Your task to perform on an android device: Open sound settings Image 0: 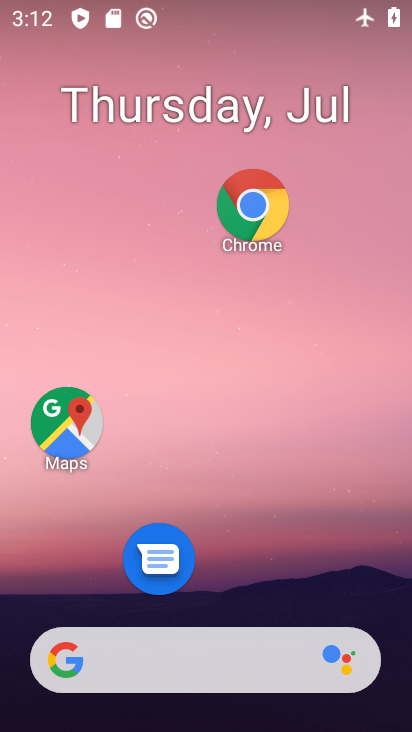
Step 0: drag from (221, 605) to (25, 285)
Your task to perform on an android device: Open sound settings Image 1: 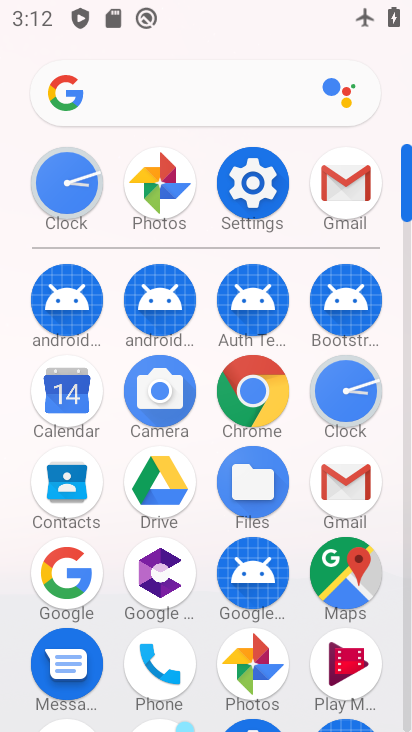
Step 1: click (265, 202)
Your task to perform on an android device: Open sound settings Image 2: 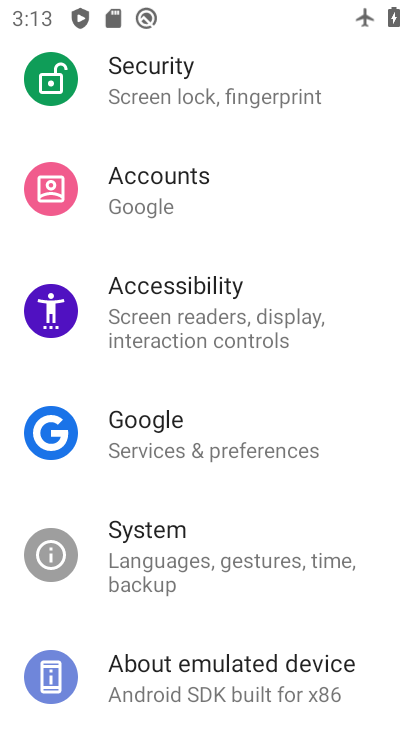
Step 2: drag from (224, 225) to (201, 599)
Your task to perform on an android device: Open sound settings Image 3: 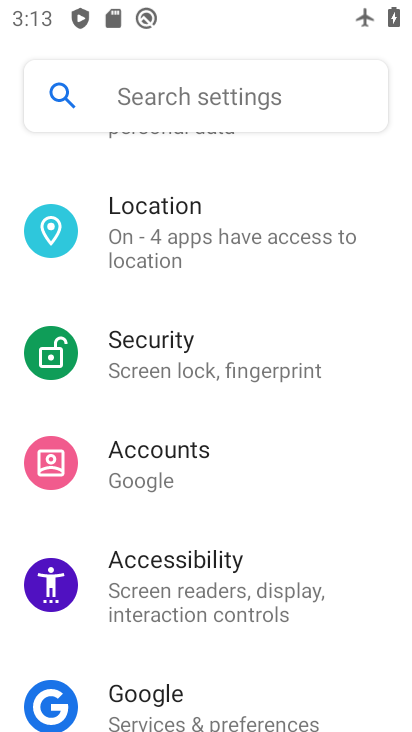
Step 3: drag from (176, 250) to (173, 561)
Your task to perform on an android device: Open sound settings Image 4: 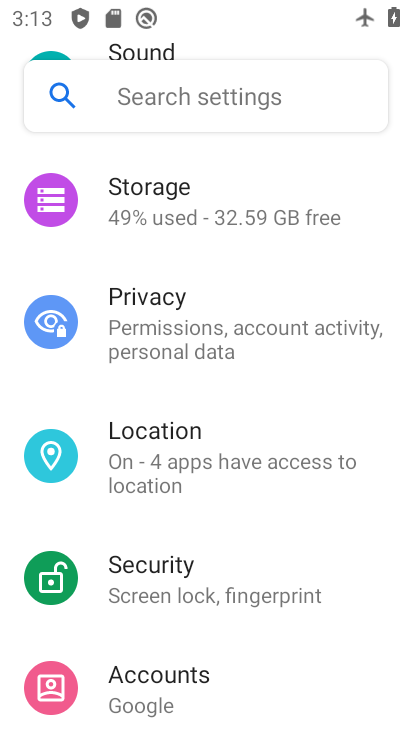
Step 4: drag from (172, 277) to (162, 729)
Your task to perform on an android device: Open sound settings Image 5: 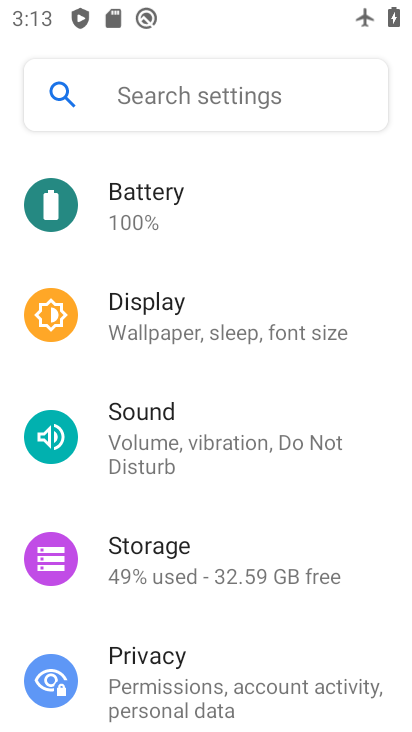
Step 5: click (163, 455)
Your task to perform on an android device: Open sound settings Image 6: 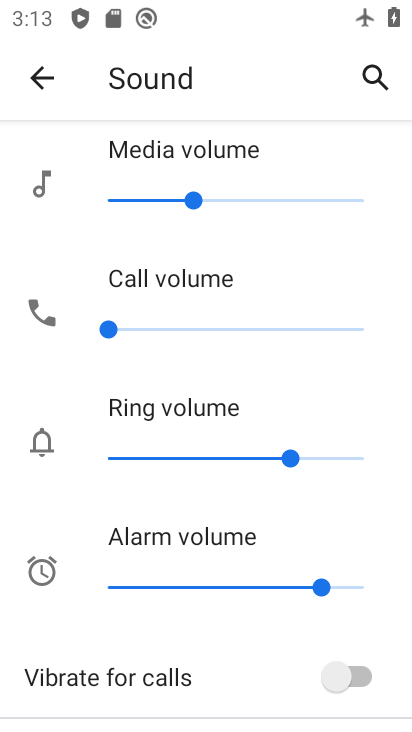
Step 6: click (353, 393)
Your task to perform on an android device: Open sound settings Image 7: 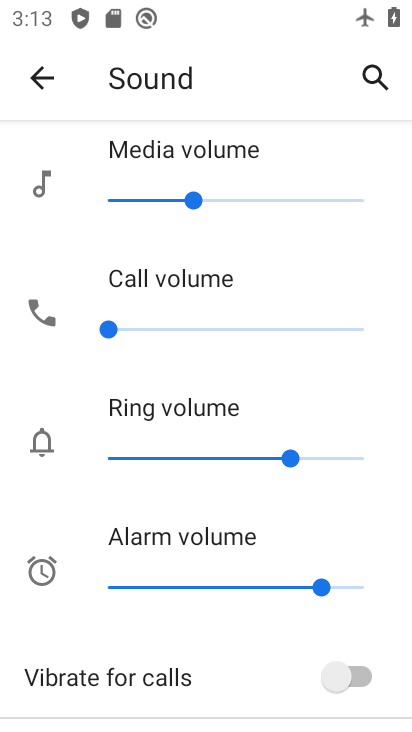
Step 7: task complete